Your task to perform on an android device: find photos in the google photos app Image 0: 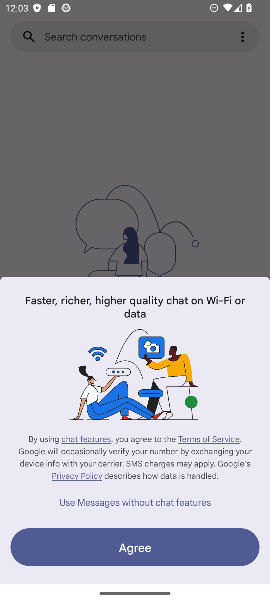
Step 0: press home button
Your task to perform on an android device: find photos in the google photos app Image 1: 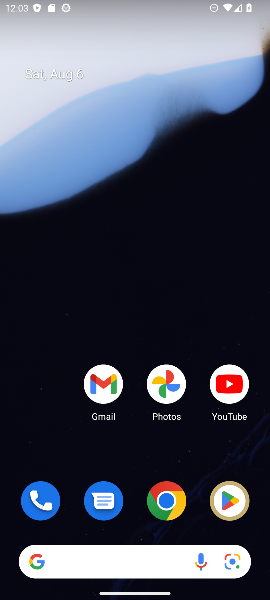
Step 1: click (160, 390)
Your task to perform on an android device: find photos in the google photos app Image 2: 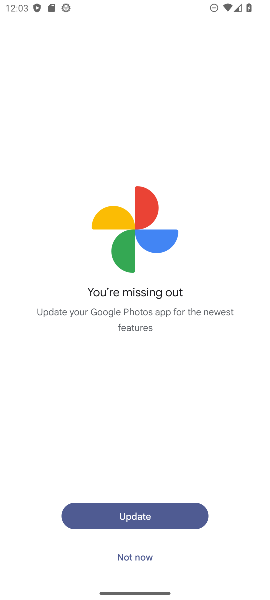
Step 2: click (136, 554)
Your task to perform on an android device: find photos in the google photos app Image 3: 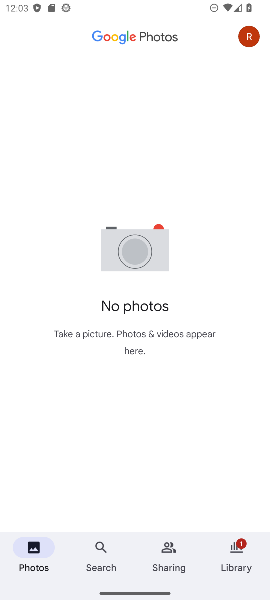
Step 3: task complete